Your task to perform on an android device: toggle show notifications on the lock screen Image 0: 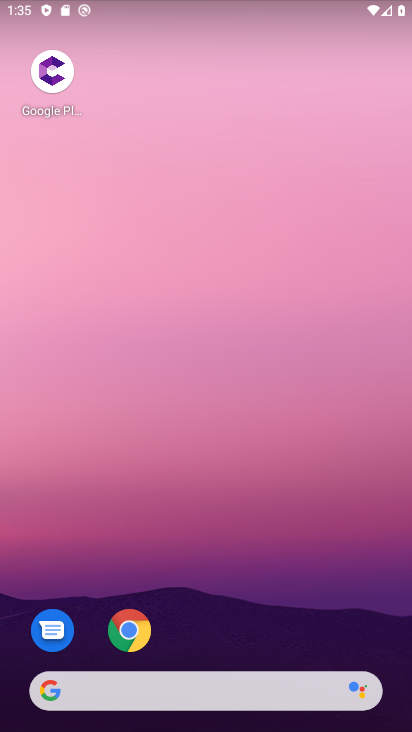
Step 0: drag from (402, 695) to (374, 195)
Your task to perform on an android device: toggle show notifications on the lock screen Image 1: 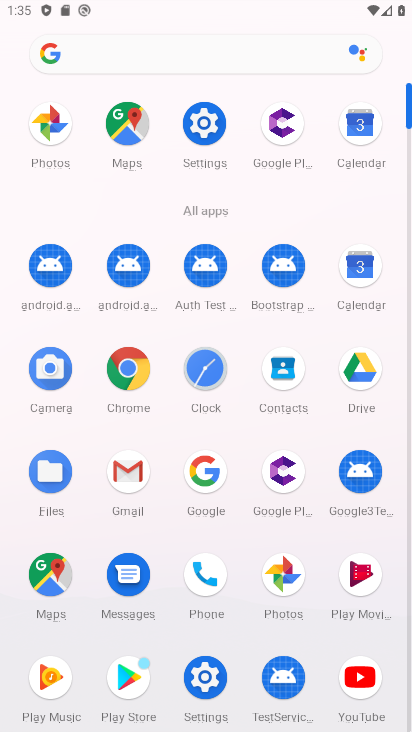
Step 1: click (209, 116)
Your task to perform on an android device: toggle show notifications on the lock screen Image 2: 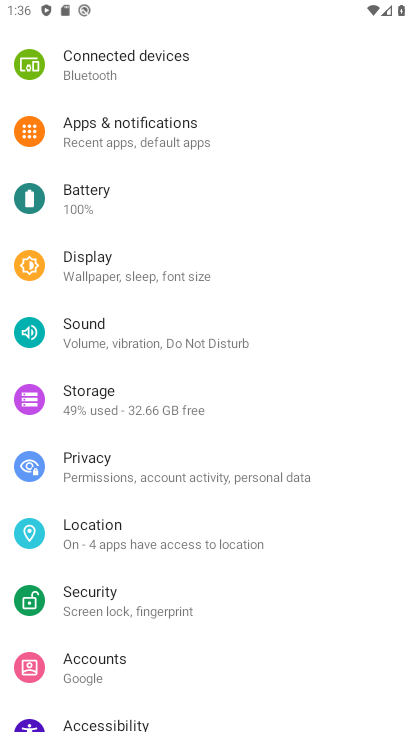
Step 2: click (112, 129)
Your task to perform on an android device: toggle show notifications on the lock screen Image 3: 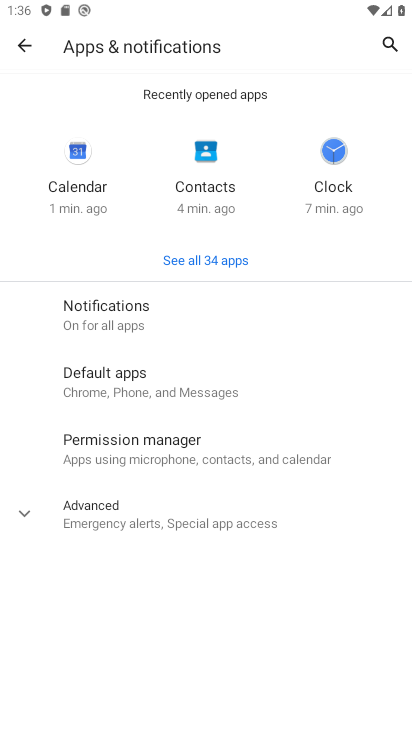
Step 3: click (85, 313)
Your task to perform on an android device: toggle show notifications on the lock screen Image 4: 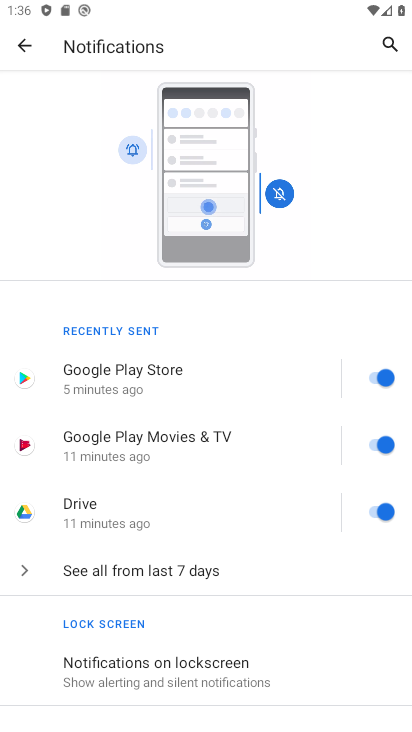
Step 4: click (140, 666)
Your task to perform on an android device: toggle show notifications on the lock screen Image 5: 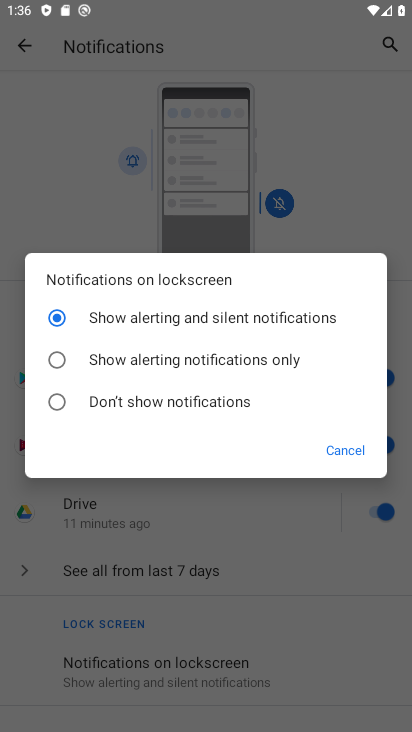
Step 5: click (61, 355)
Your task to perform on an android device: toggle show notifications on the lock screen Image 6: 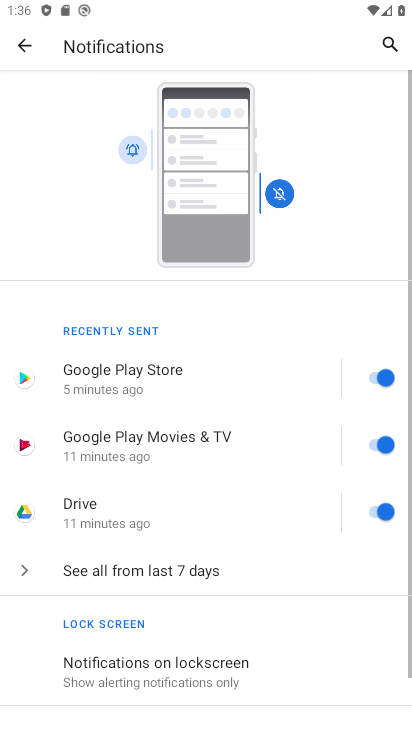
Step 6: task complete